Your task to perform on an android device: Open Google Chrome and open the bookmarks view Image 0: 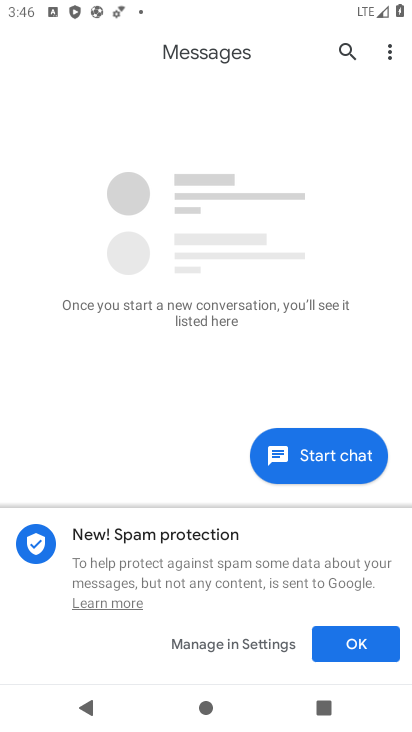
Step 0: press home button
Your task to perform on an android device: Open Google Chrome and open the bookmarks view Image 1: 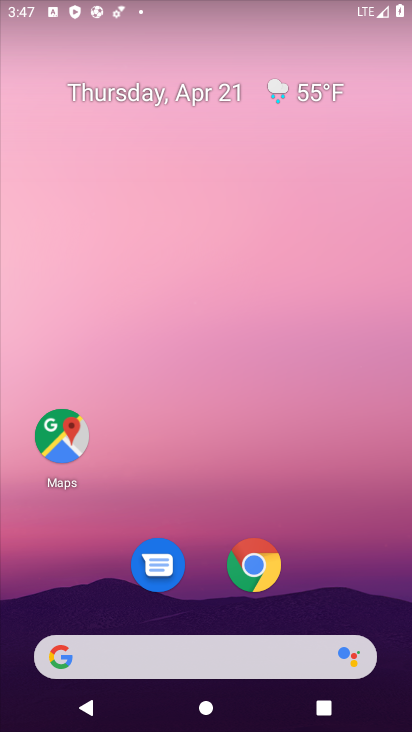
Step 1: click (259, 566)
Your task to perform on an android device: Open Google Chrome and open the bookmarks view Image 2: 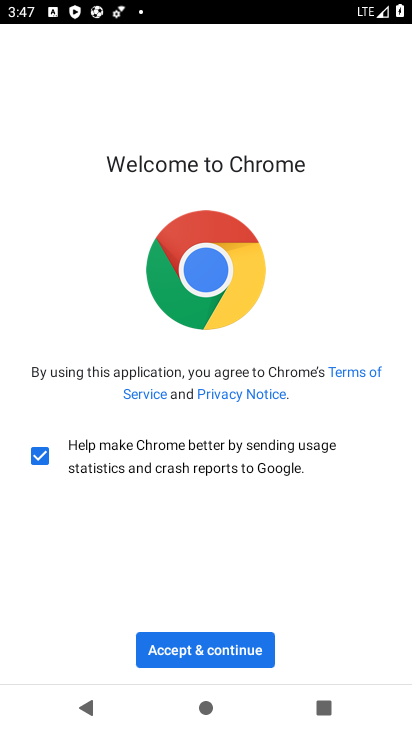
Step 2: click (251, 652)
Your task to perform on an android device: Open Google Chrome and open the bookmarks view Image 3: 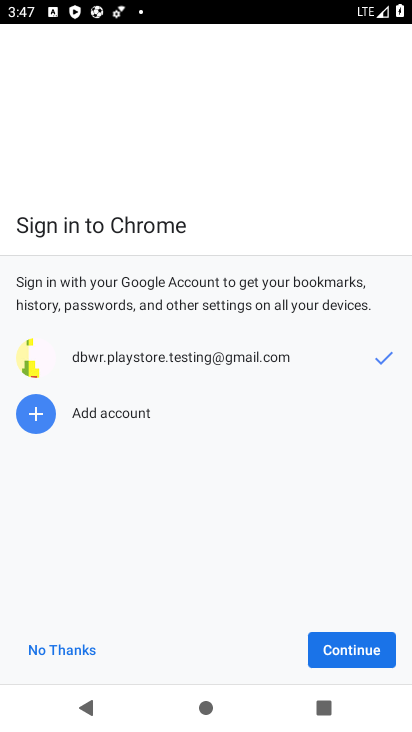
Step 3: click (371, 646)
Your task to perform on an android device: Open Google Chrome and open the bookmarks view Image 4: 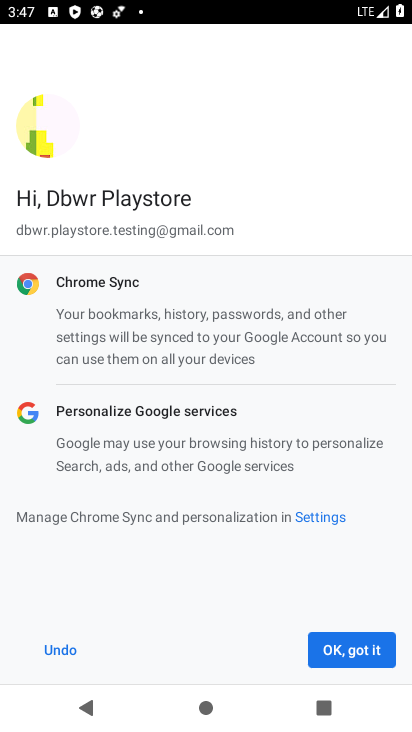
Step 4: click (371, 643)
Your task to perform on an android device: Open Google Chrome and open the bookmarks view Image 5: 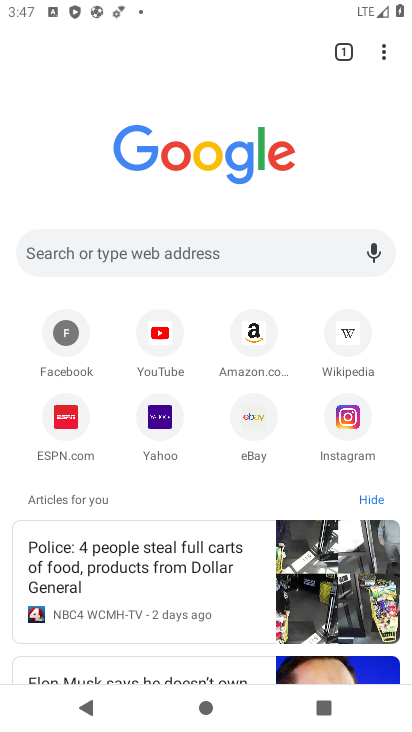
Step 5: click (384, 49)
Your task to perform on an android device: Open Google Chrome and open the bookmarks view Image 6: 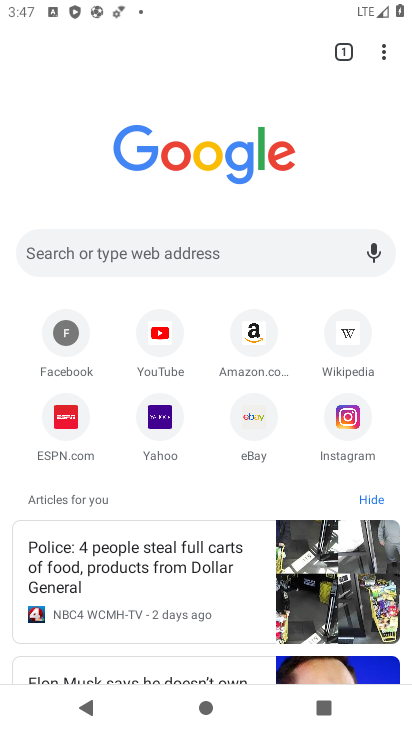
Step 6: click (384, 49)
Your task to perform on an android device: Open Google Chrome and open the bookmarks view Image 7: 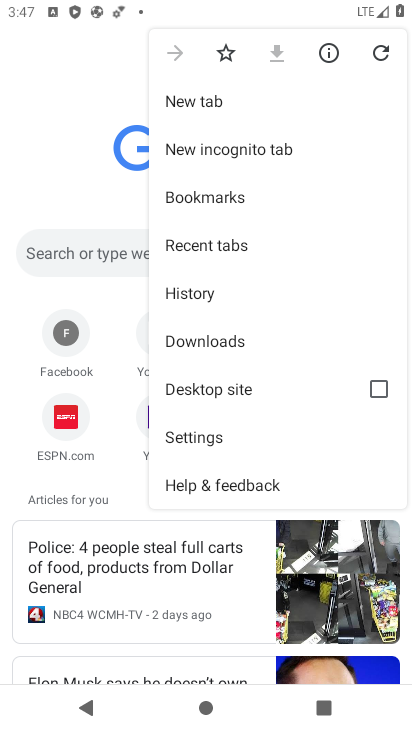
Step 7: click (259, 199)
Your task to perform on an android device: Open Google Chrome and open the bookmarks view Image 8: 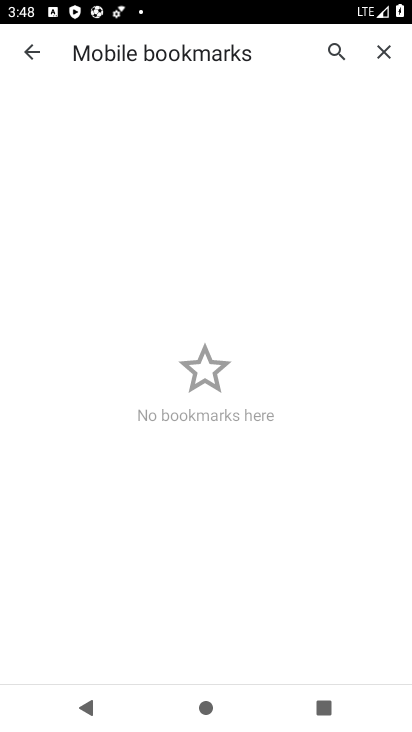
Step 8: task complete